Your task to perform on an android device: turn on priority inbox in the gmail app Image 0: 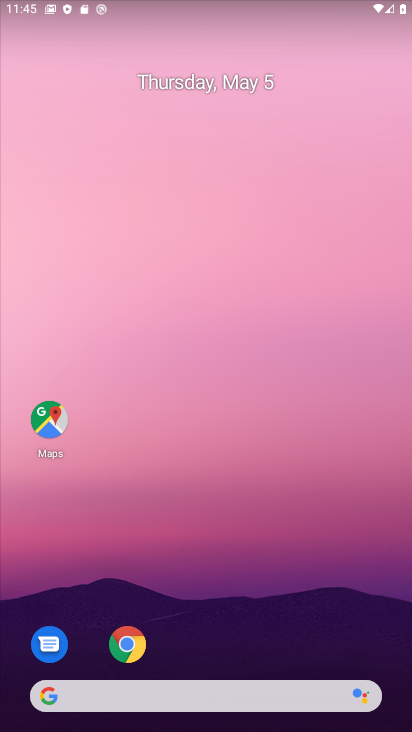
Step 0: drag from (66, 501) to (232, 150)
Your task to perform on an android device: turn on priority inbox in the gmail app Image 1: 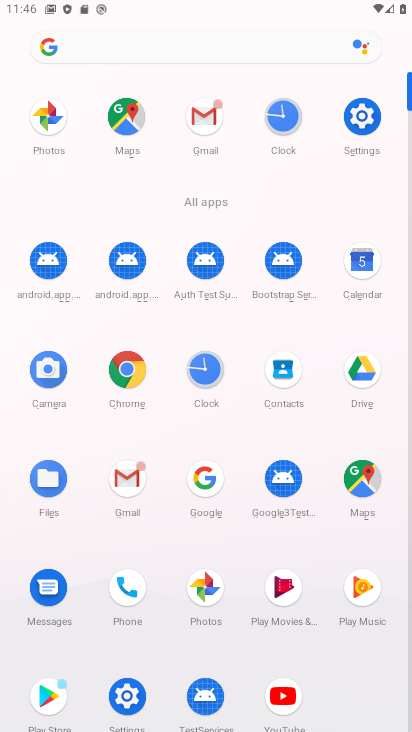
Step 1: click (119, 459)
Your task to perform on an android device: turn on priority inbox in the gmail app Image 2: 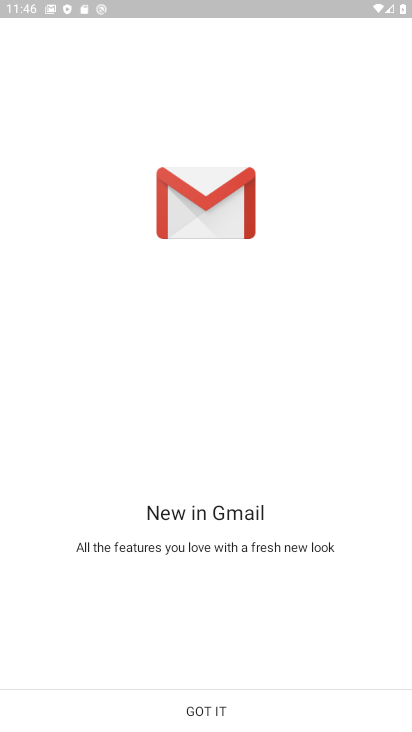
Step 2: click (213, 711)
Your task to perform on an android device: turn on priority inbox in the gmail app Image 3: 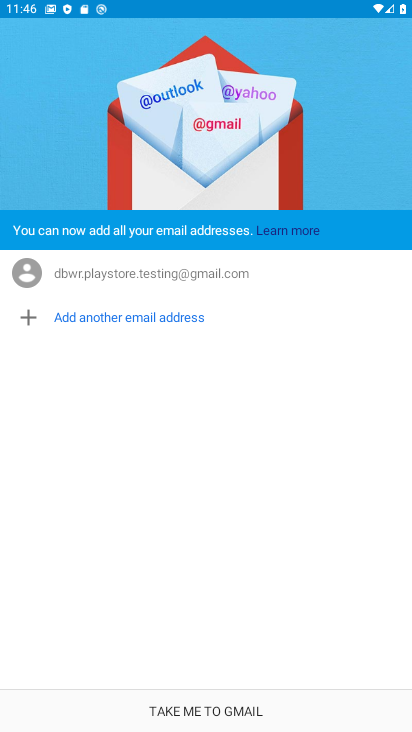
Step 3: click (206, 703)
Your task to perform on an android device: turn on priority inbox in the gmail app Image 4: 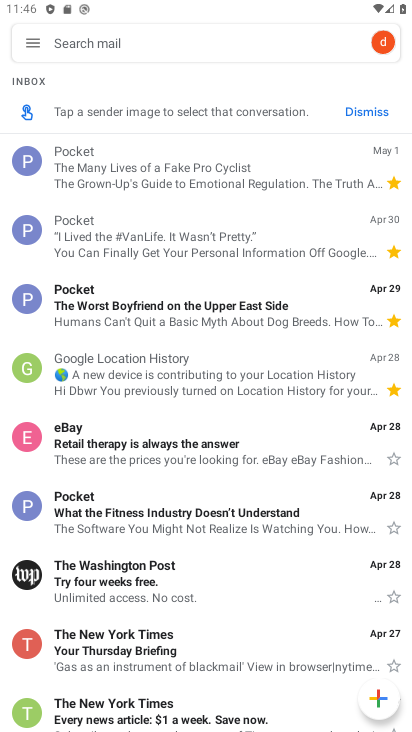
Step 4: click (35, 40)
Your task to perform on an android device: turn on priority inbox in the gmail app Image 5: 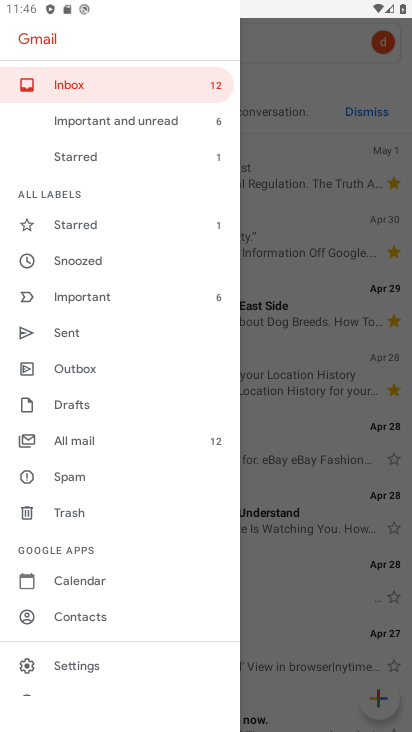
Step 5: click (80, 665)
Your task to perform on an android device: turn on priority inbox in the gmail app Image 6: 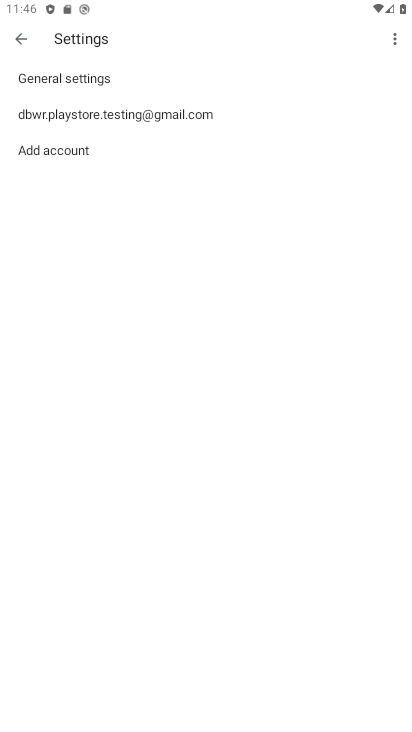
Step 6: click (148, 106)
Your task to perform on an android device: turn on priority inbox in the gmail app Image 7: 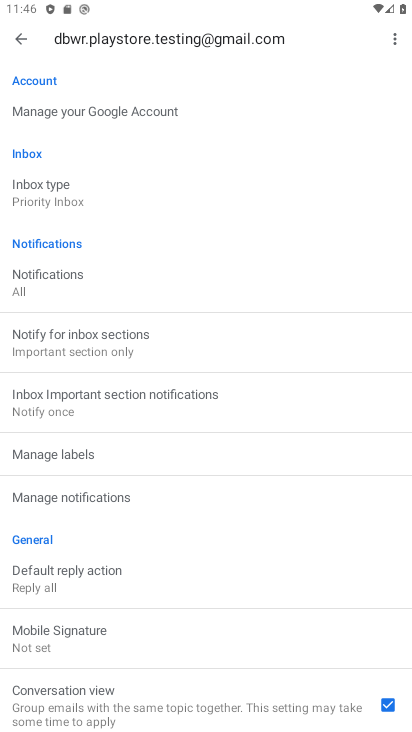
Step 7: click (103, 205)
Your task to perform on an android device: turn on priority inbox in the gmail app Image 8: 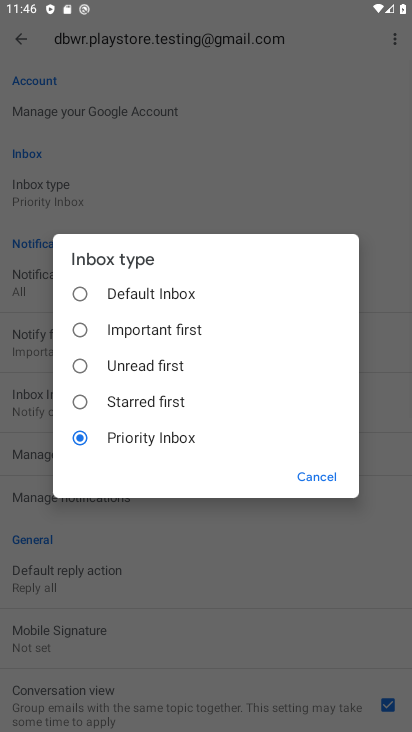
Step 8: click (176, 431)
Your task to perform on an android device: turn on priority inbox in the gmail app Image 9: 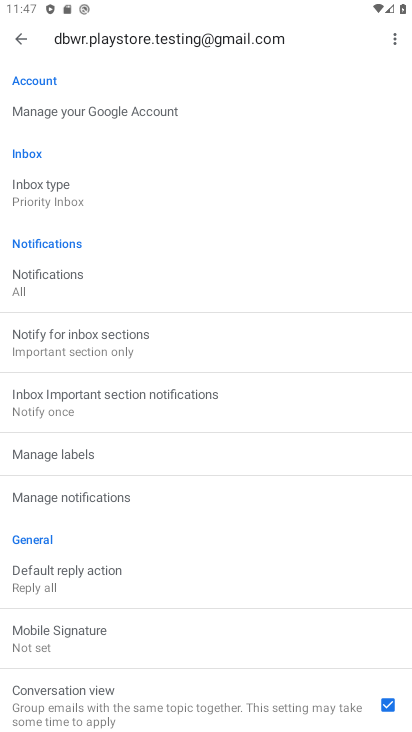
Step 9: task complete